Your task to perform on an android device: Check the latest toasters on Target. Image 0: 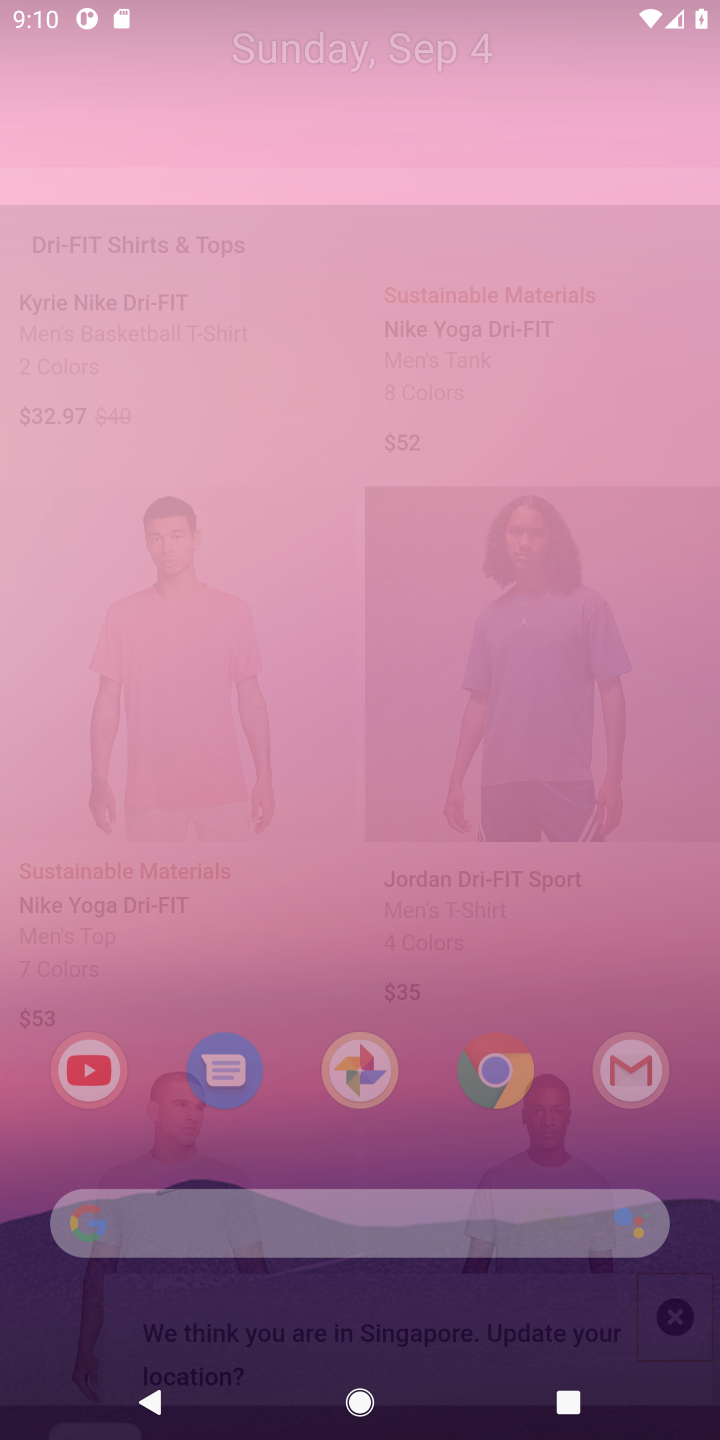
Step 0: press home button
Your task to perform on an android device: Check the latest toasters on Target. Image 1: 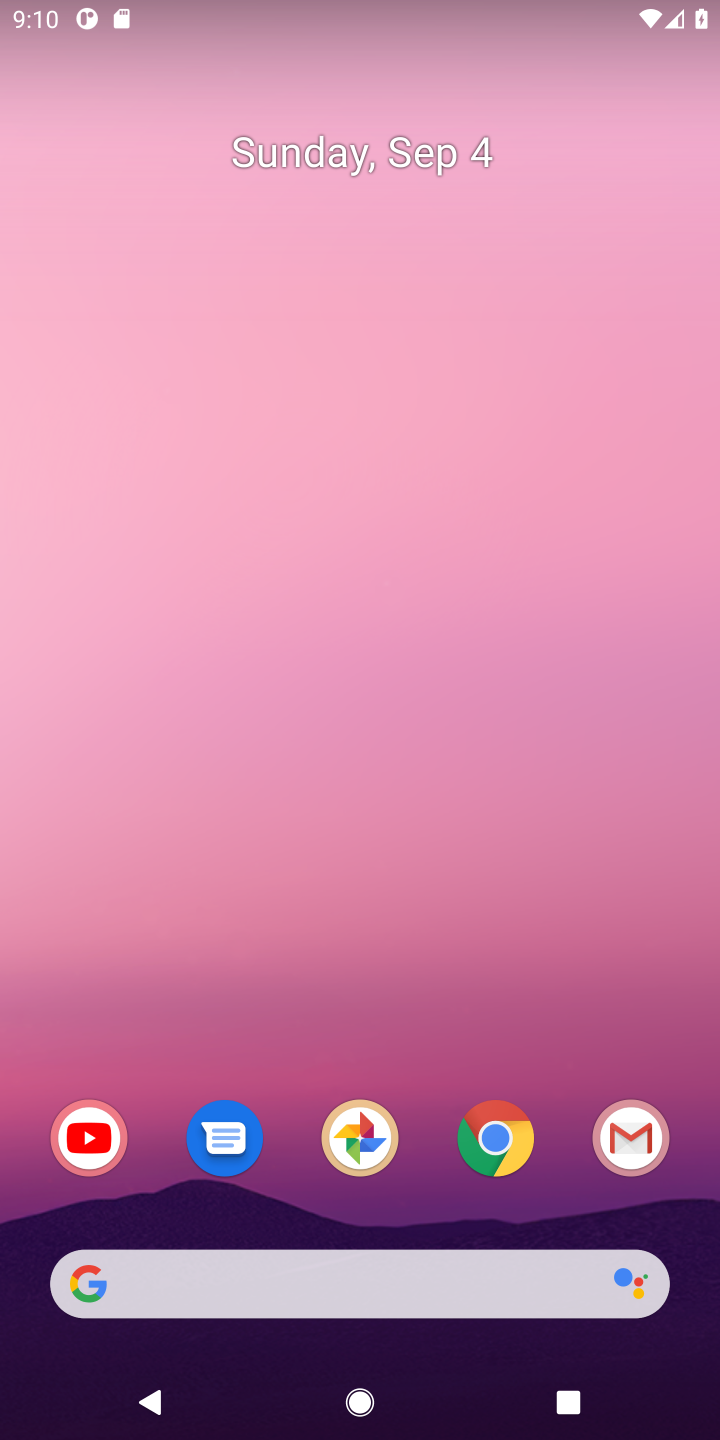
Step 1: drag from (405, 932) to (396, 196)
Your task to perform on an android device: Check the latest toasters on Target. Image 2: 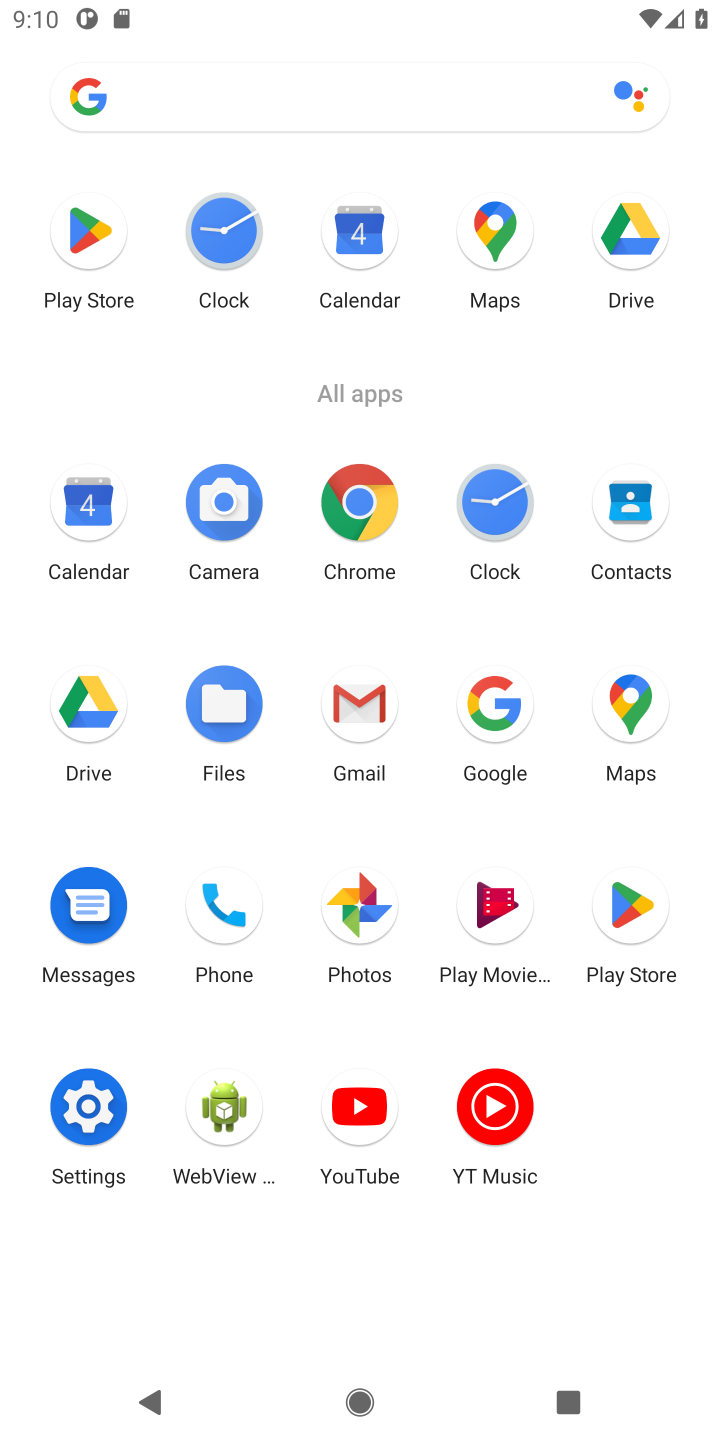
Step 2: click (356, 497)
Your task to perform on an android device: Check the latest toasters on Target. Image 3: 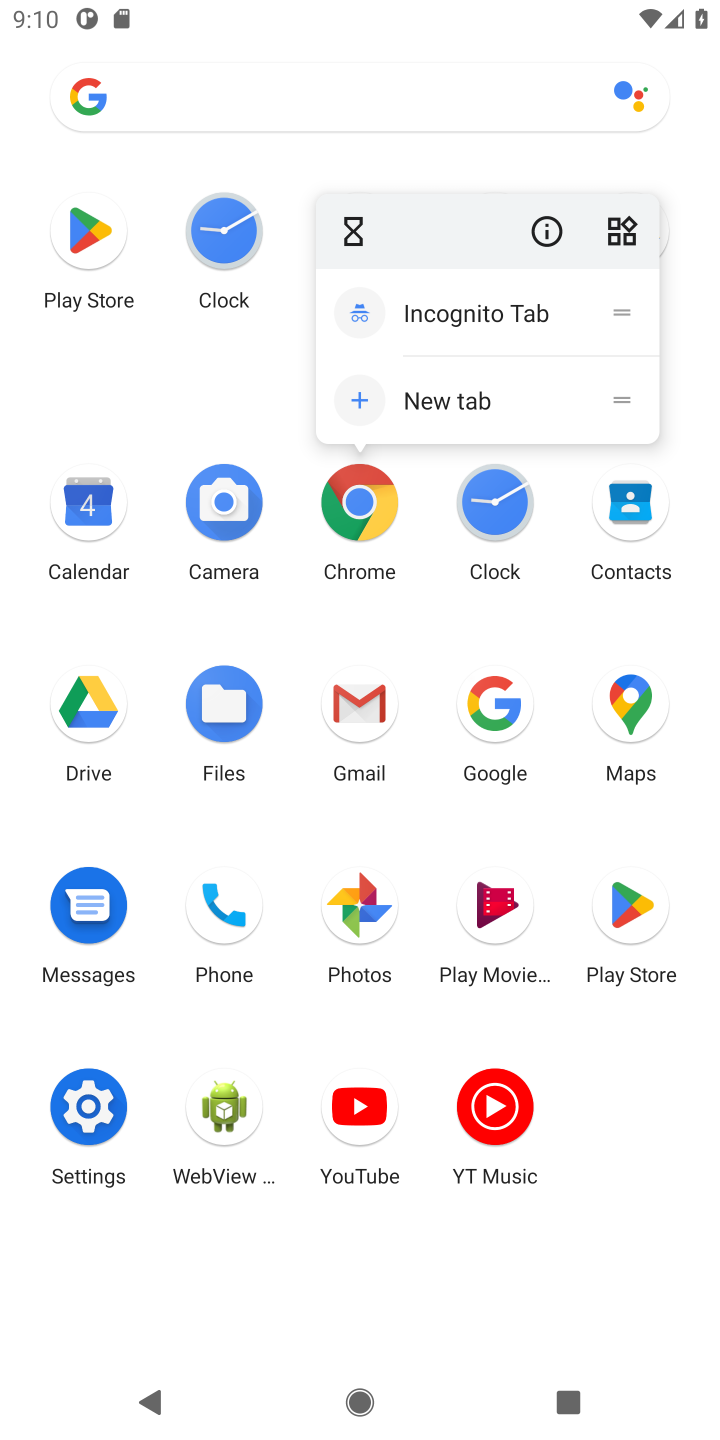
Step 3: click (354, 502)
Your task to perform on an android device: Check the latest toasters on Target. Image 4: 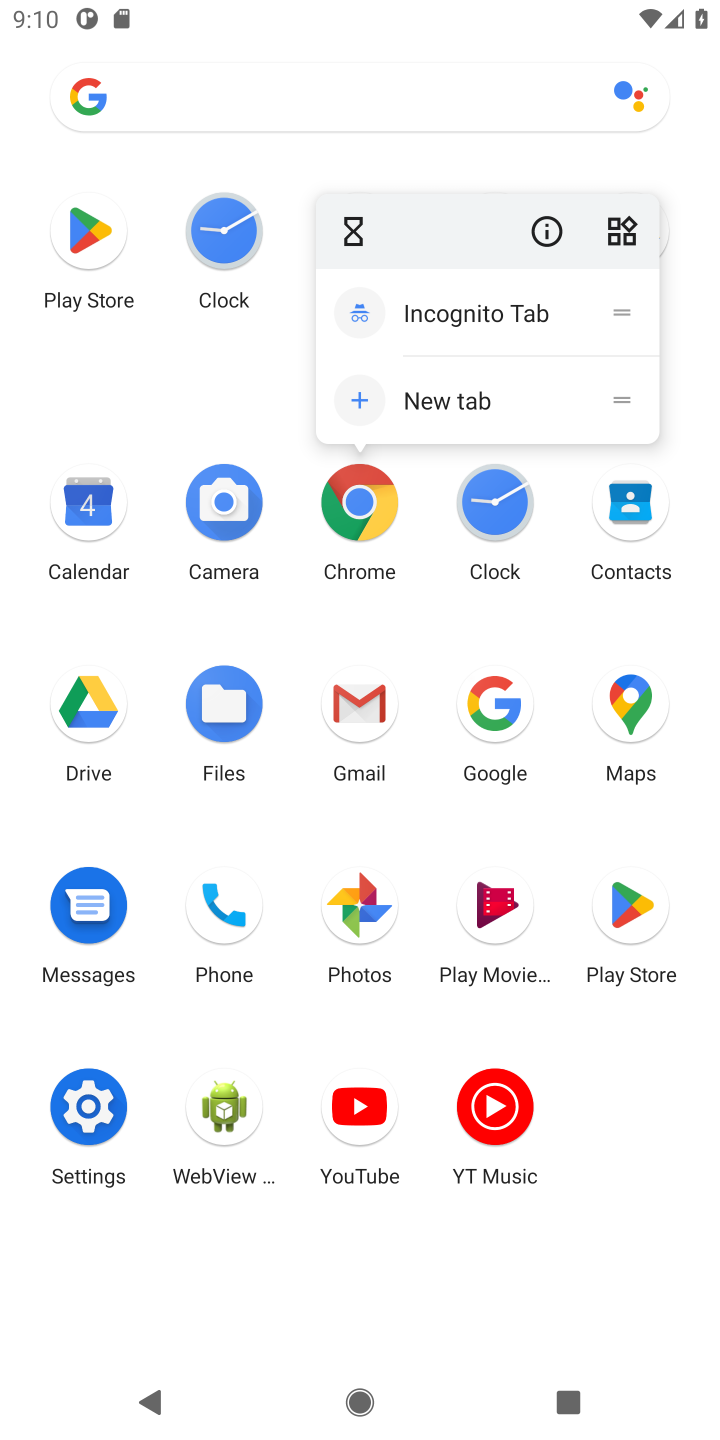
Step 4: click (361, 492)
Your task to perform on an android device: Check the latest toasters on Target. Image 5: 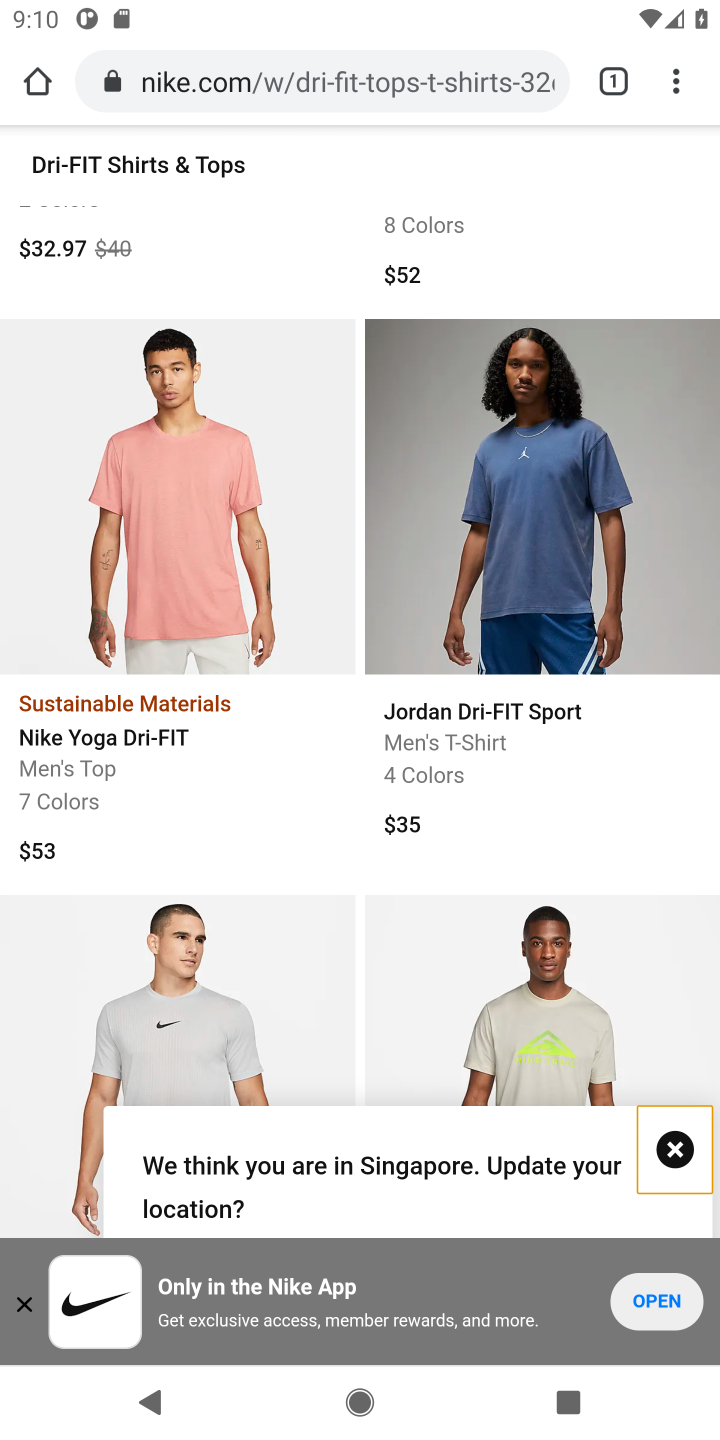
Step 5: click (613, 76)
Your task to perform on an android device: Check the latest toasters on Target. Image 6: 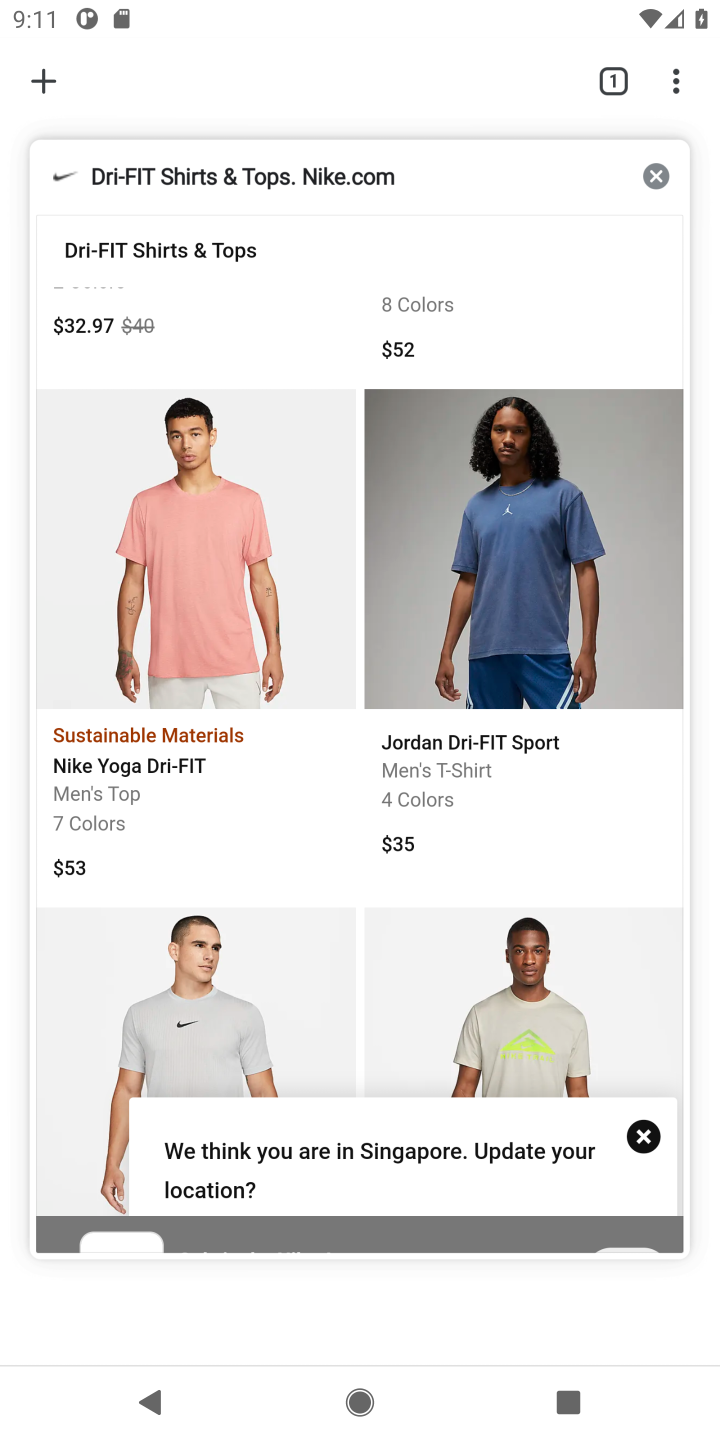
Step 6: click (655, 174)
Your task to perform on an android device: Check the latest toasters on Target. Image 7: 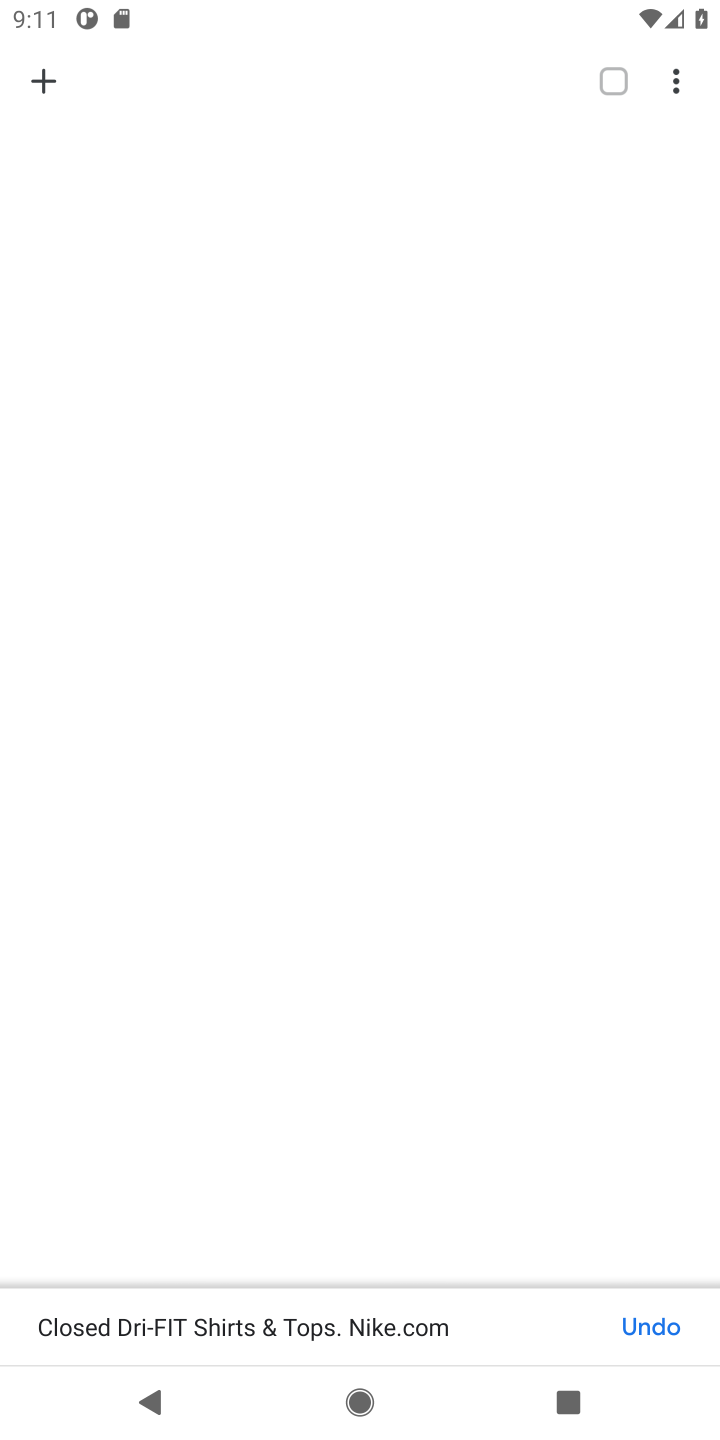
Step 7: click (46, 79)
Your task to perform on an android device: Check the latest toasters on Target. Image 8: 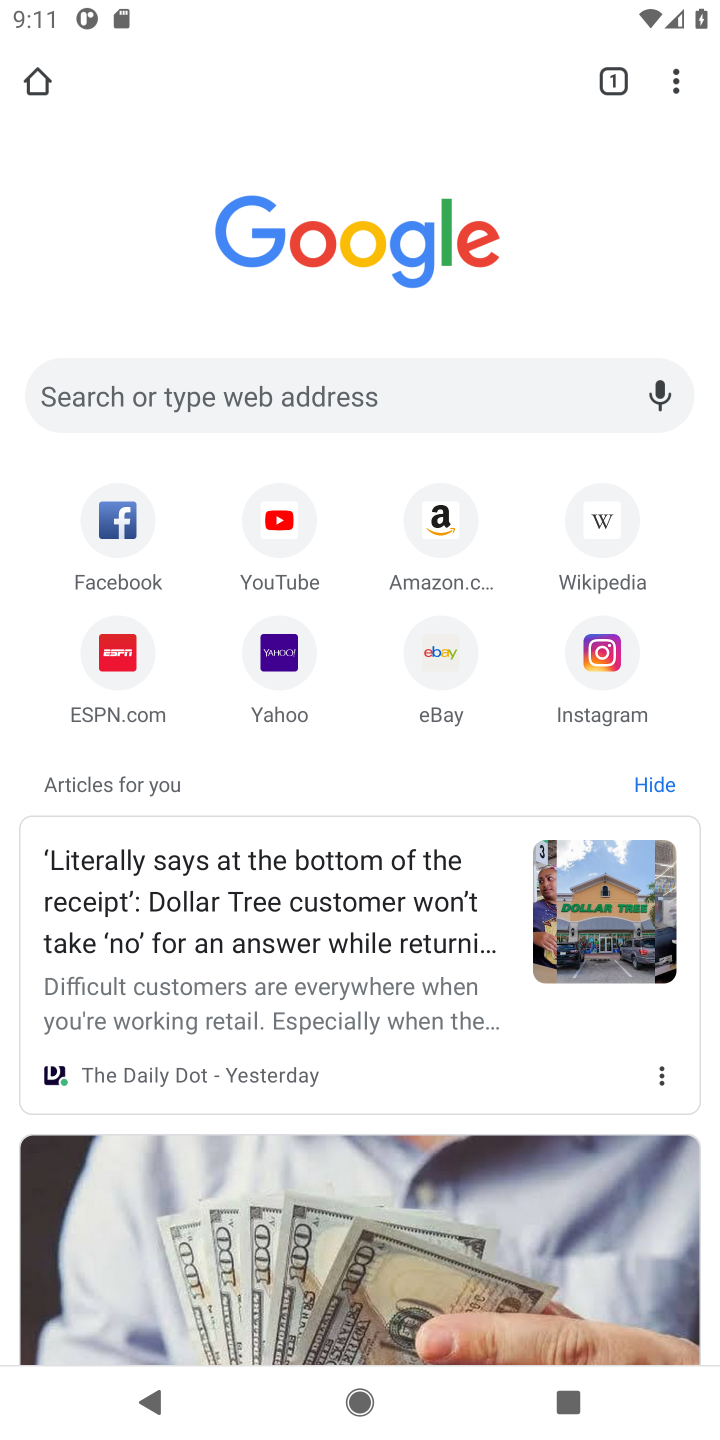
Step 8: click (193, 389)
Your task to perform on an android device: Check the latest toasters on Target. Image 9: 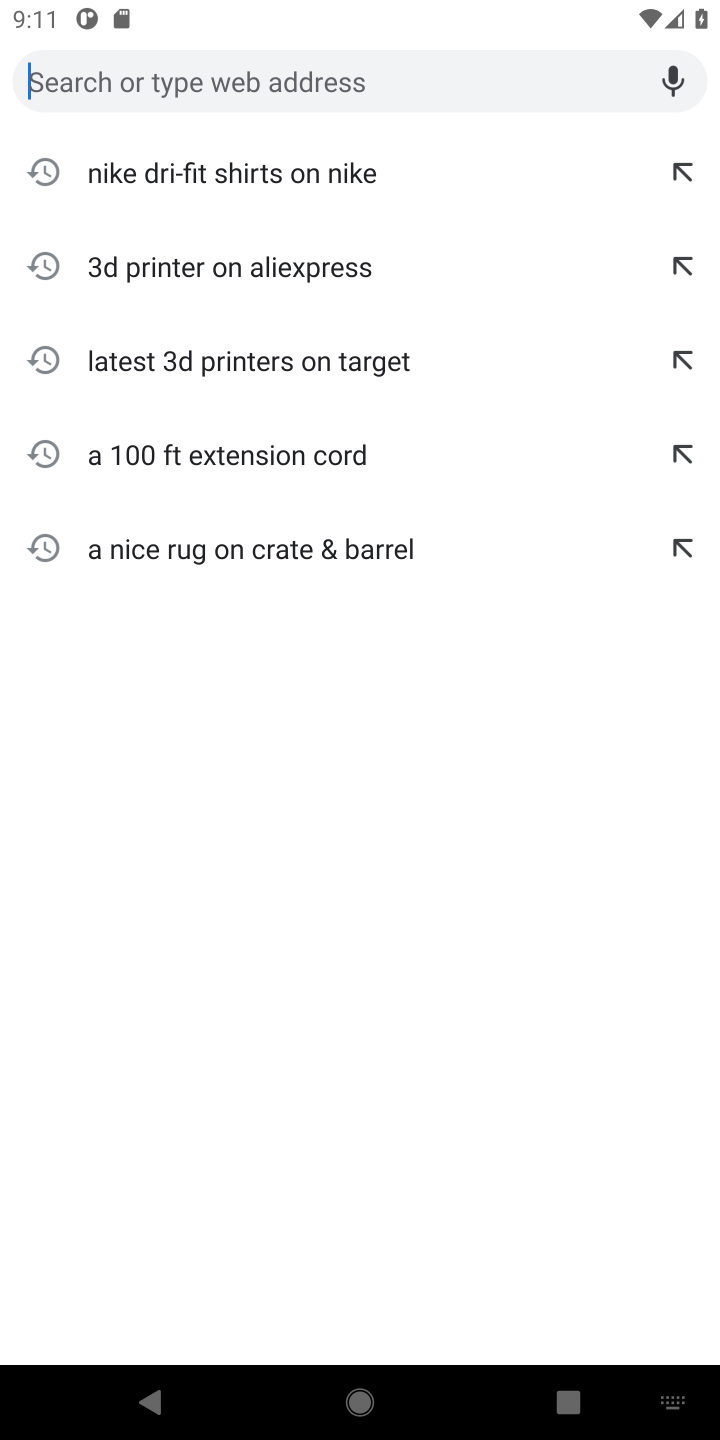
Step 9: type " latest toasters on Target"
Your task to perform on an android device: Check the latest toasters on Target. Image 10: 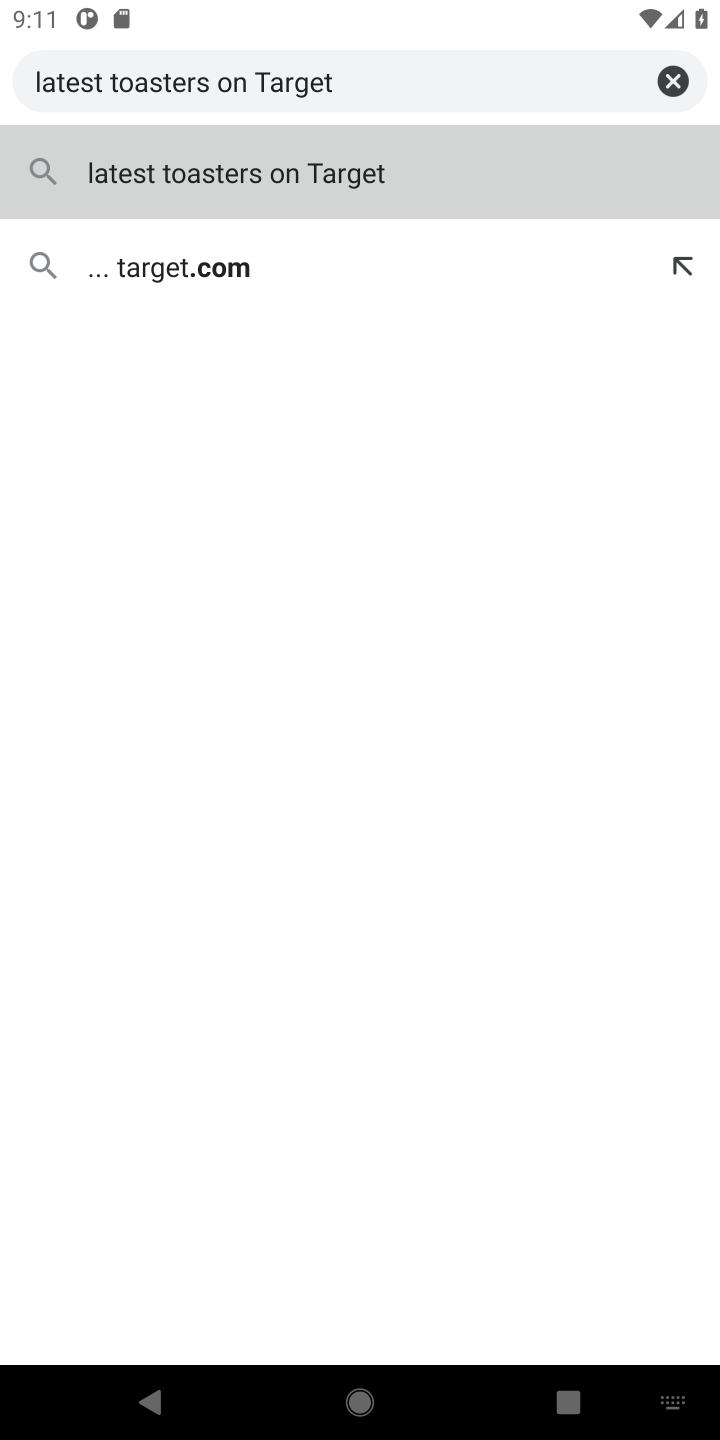
Step 10: type ""
Your task to perform on an android device: Check the latest toasters on Target. Image 11: 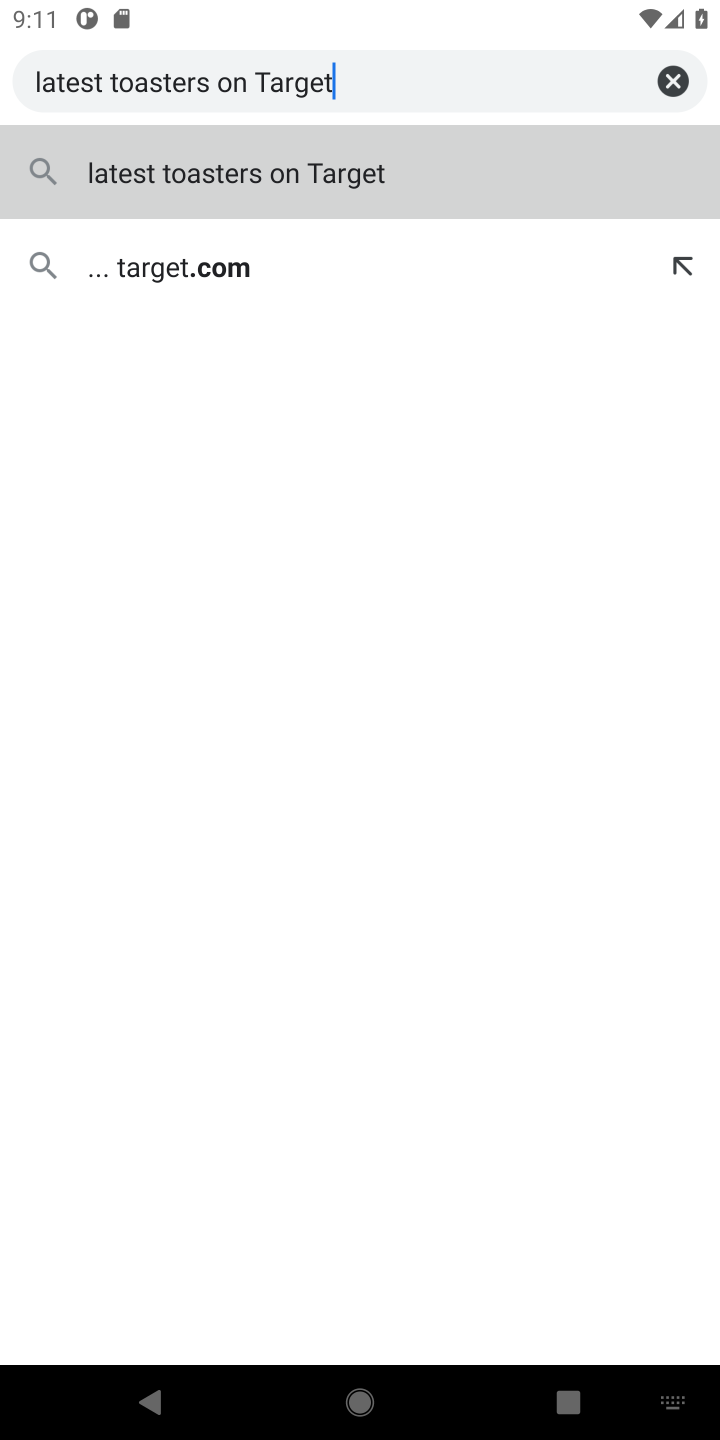
Step 11: click (205, 160)
Your task to perform on an android device: Check the latest toasters on Target. Image 12: 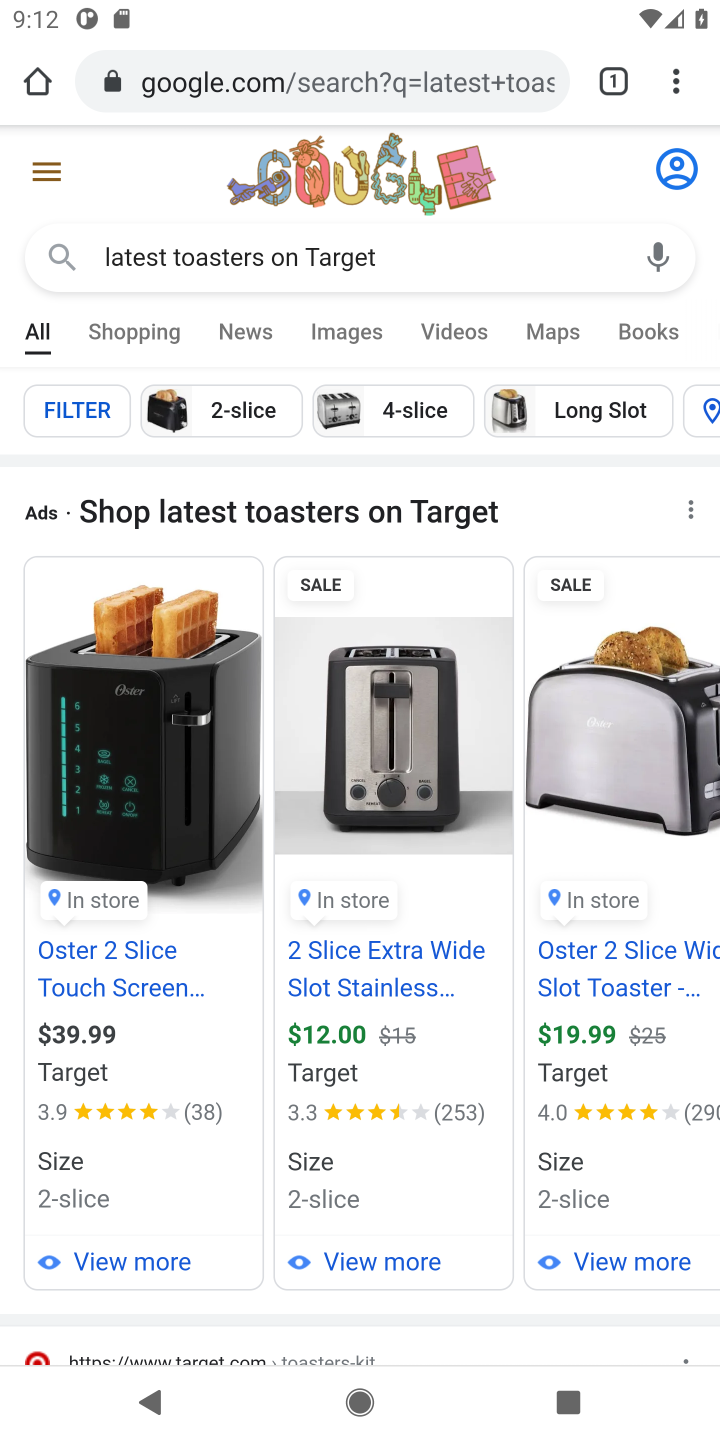
Step 12: drag from (418, 1316) to (386, 282)
Your task to perform on an android device: Check the latest toasters on Target. Image 13: 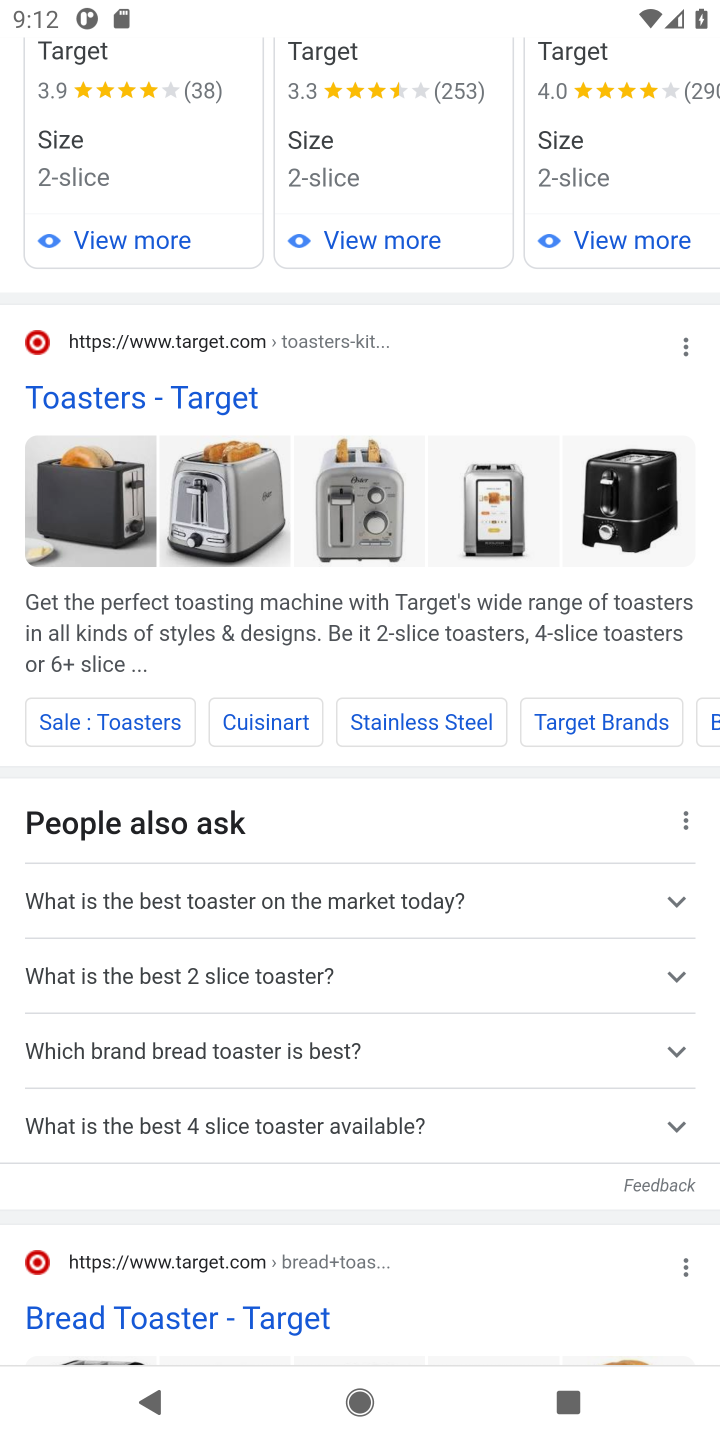
Step 13: click (121, 398)
Your task to perform on an android device: Check the latest toasters on Target. Image 14: 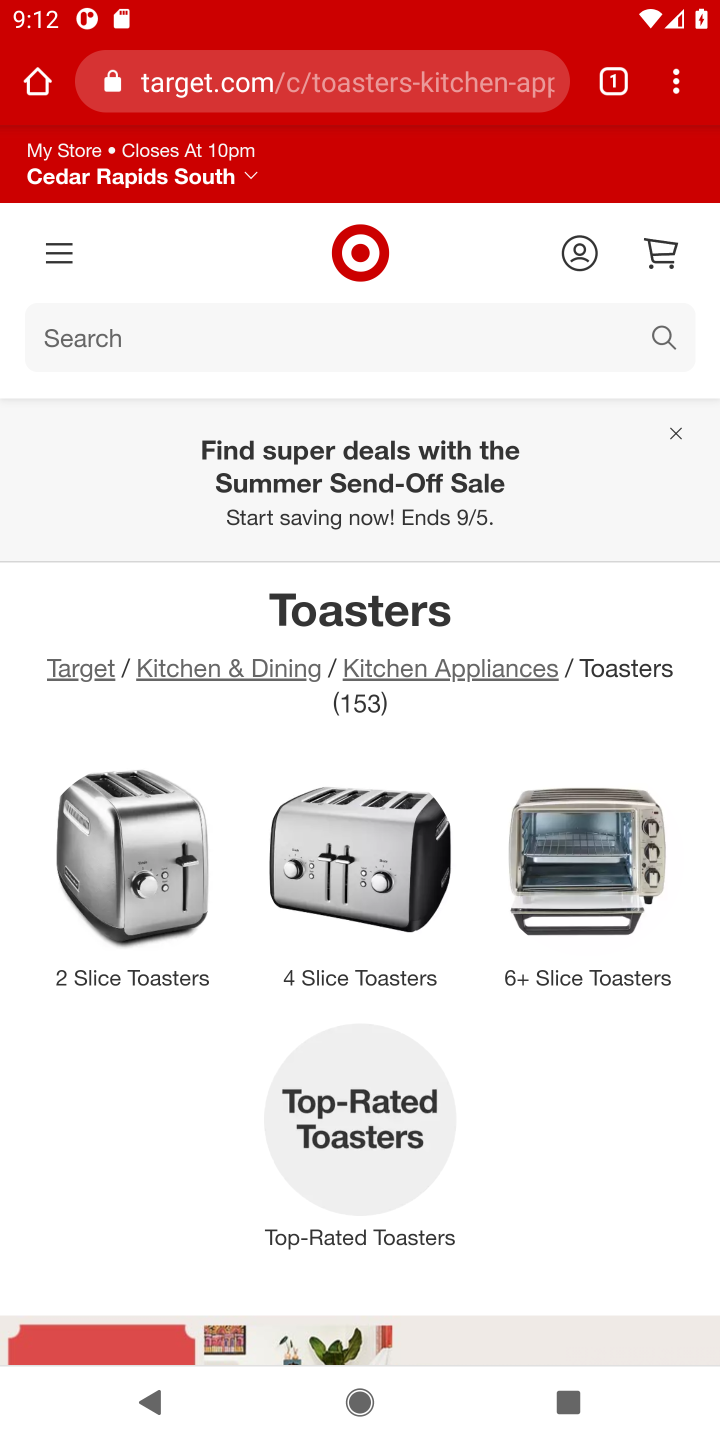
Step 14: task complete